Your task to perform on an android device: open app "Messenger Lite" (install if not already installed), go to login, and select forgot password Image 0: 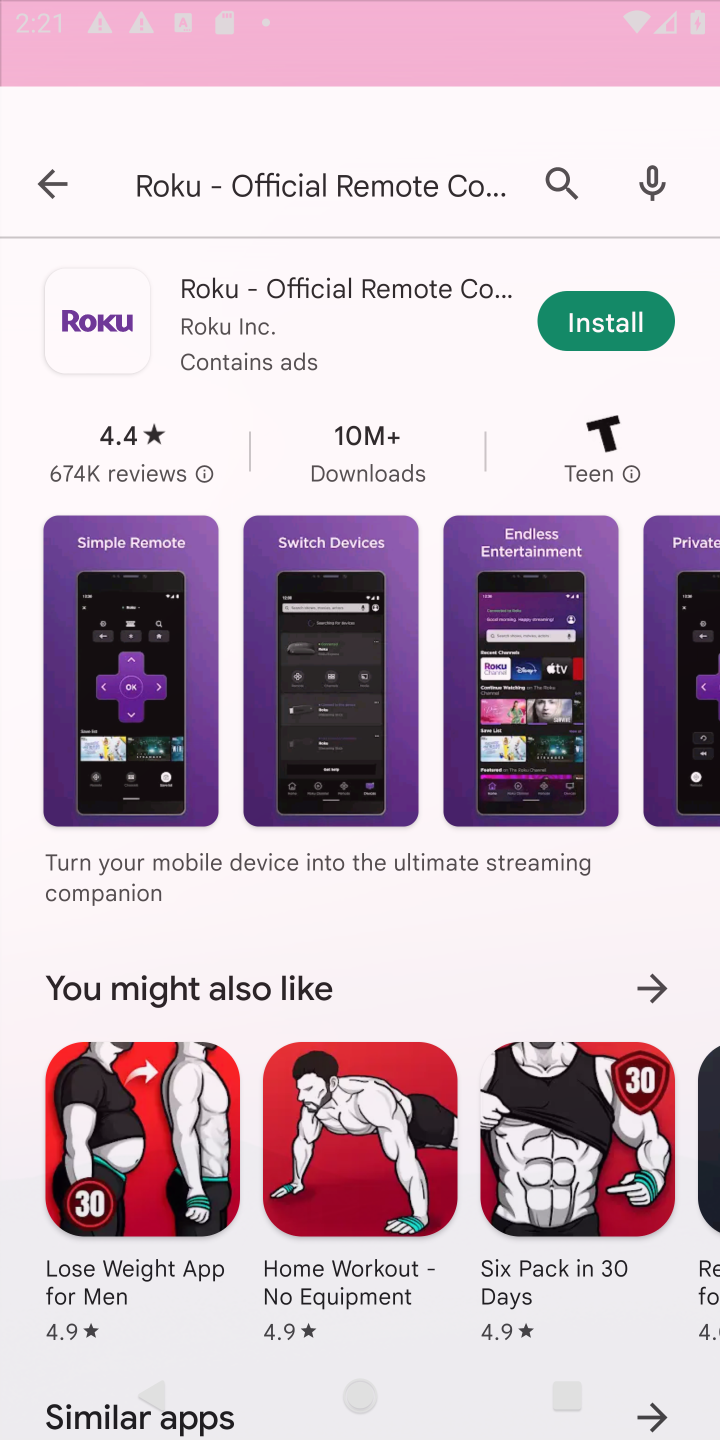
Step 0: press home button
Your task to perform on an android device: open app "Messenger Lite" (install if not already installed), go to login, and select forgot password Image 1: 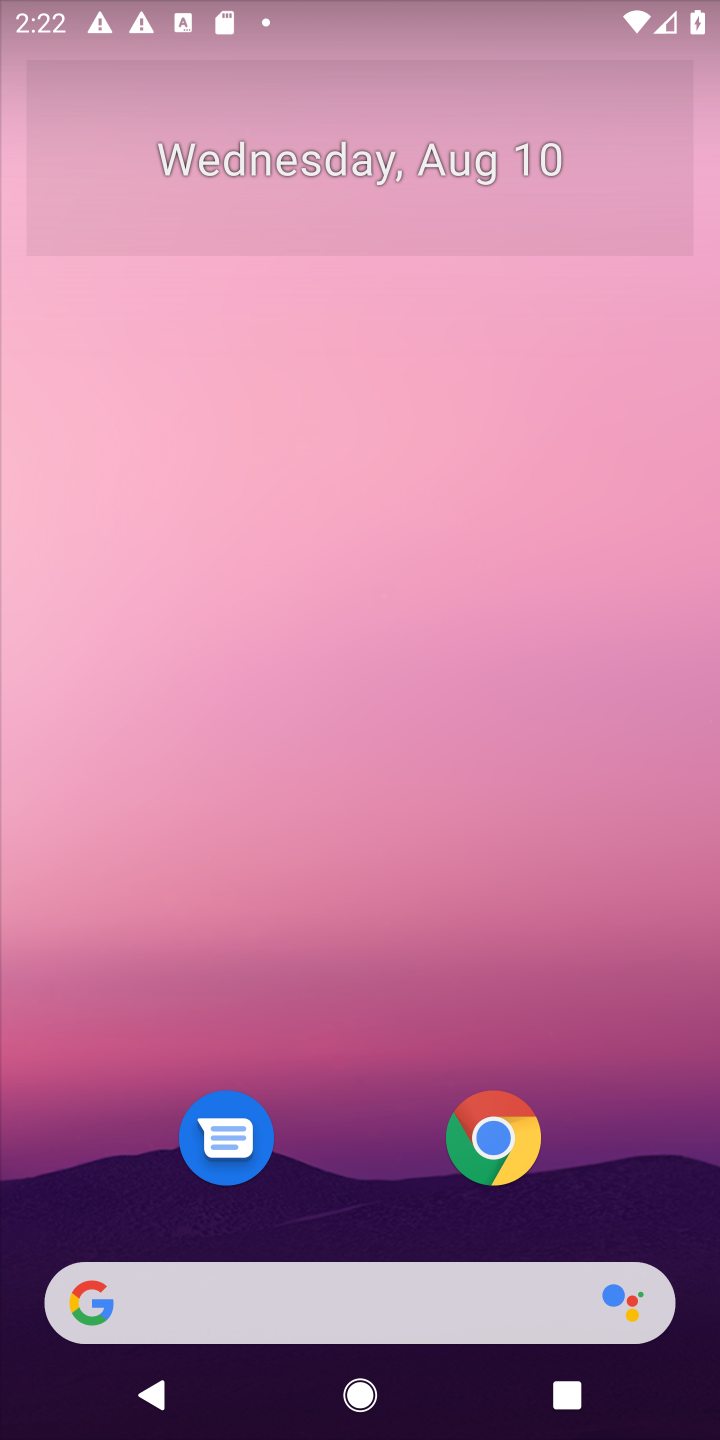
Step 1: drag from (601, 1163) to (597, 54)
Your task to perform on an android device: open app "Messenger Lite" (install if not already installed), go to login, and select forgot password Image 2: 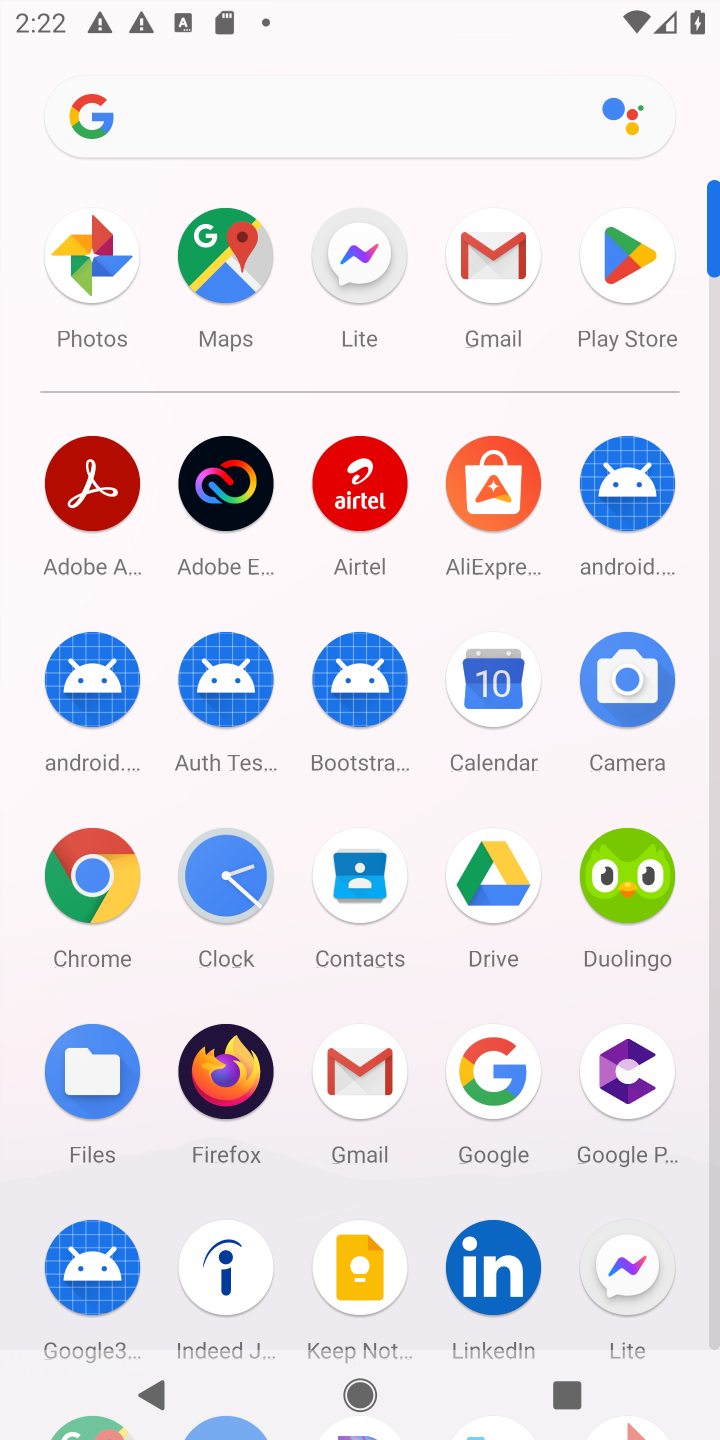
Step 2: click (616, 241)
Your task to perform on an android device: open app "Messenger Lite" (install if not already installed), go to login, and select forgot password Image 3: 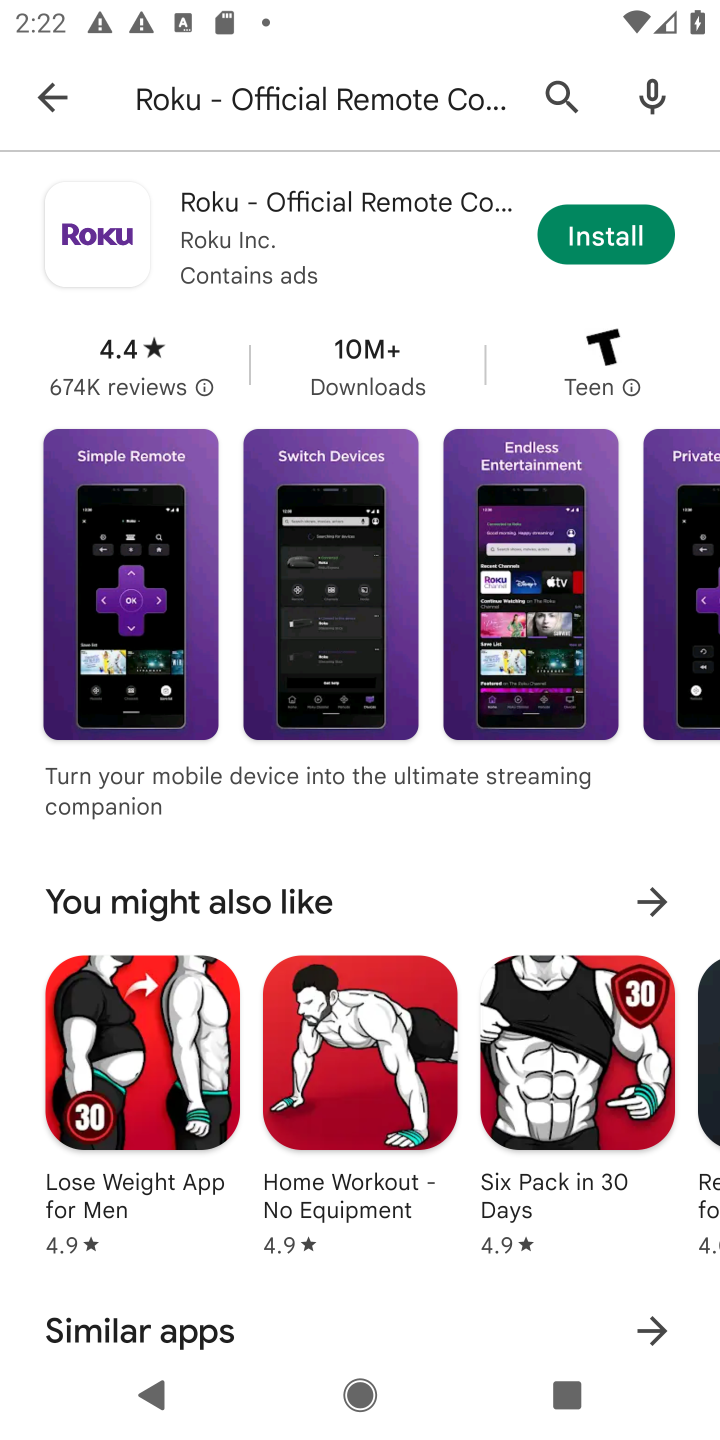
Step 3: click (552, 84)
Your task to perform on an android device: open app "Messenger Lite" (install if not already installed), go to login, and select forgot password Image 4: 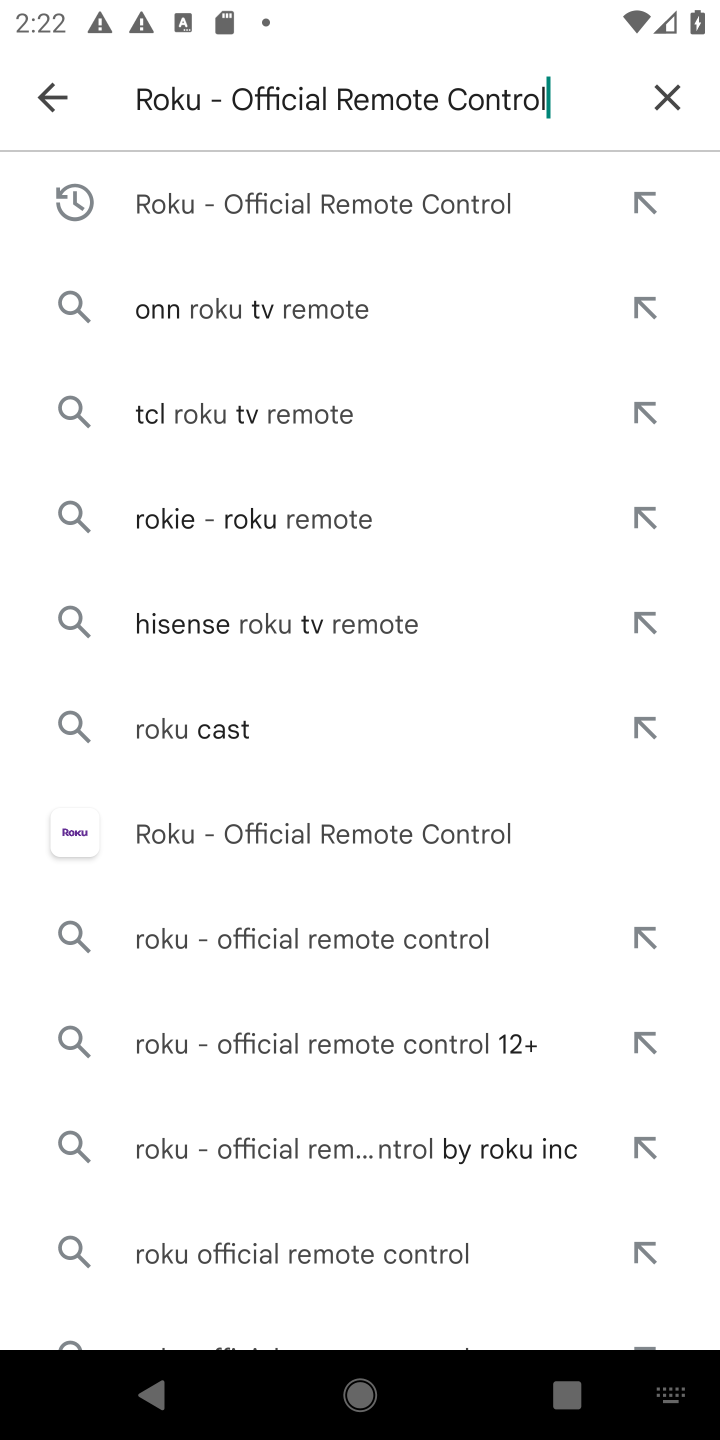
Step 4: click (662, 79)
Your task to perform on an android device: open app "Messenger Lite" (install if not already installed), go to login, and select forgot password Image 5: 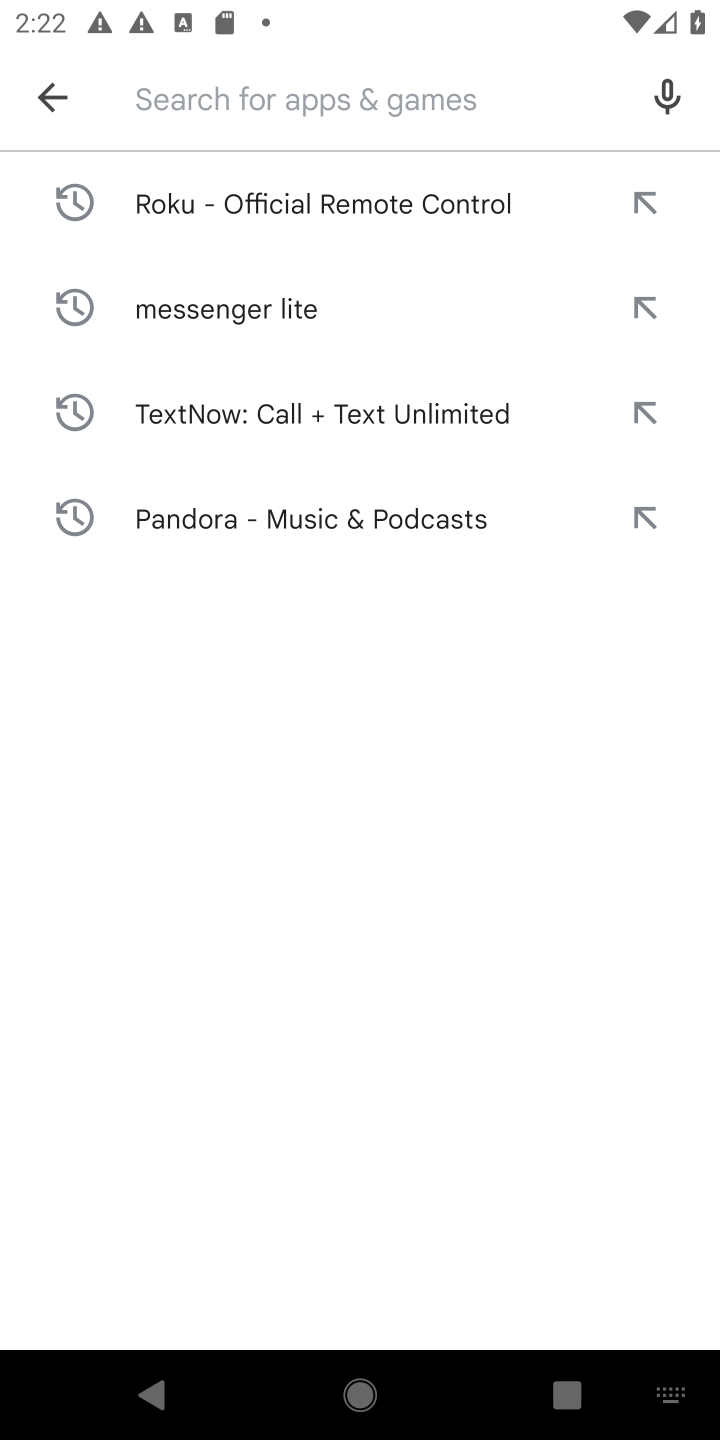
Step 5: press enter
Your task to perform on an android device: open app "Messenger Lite" (install if not already installed), go to login, and select forgot password Image 6: 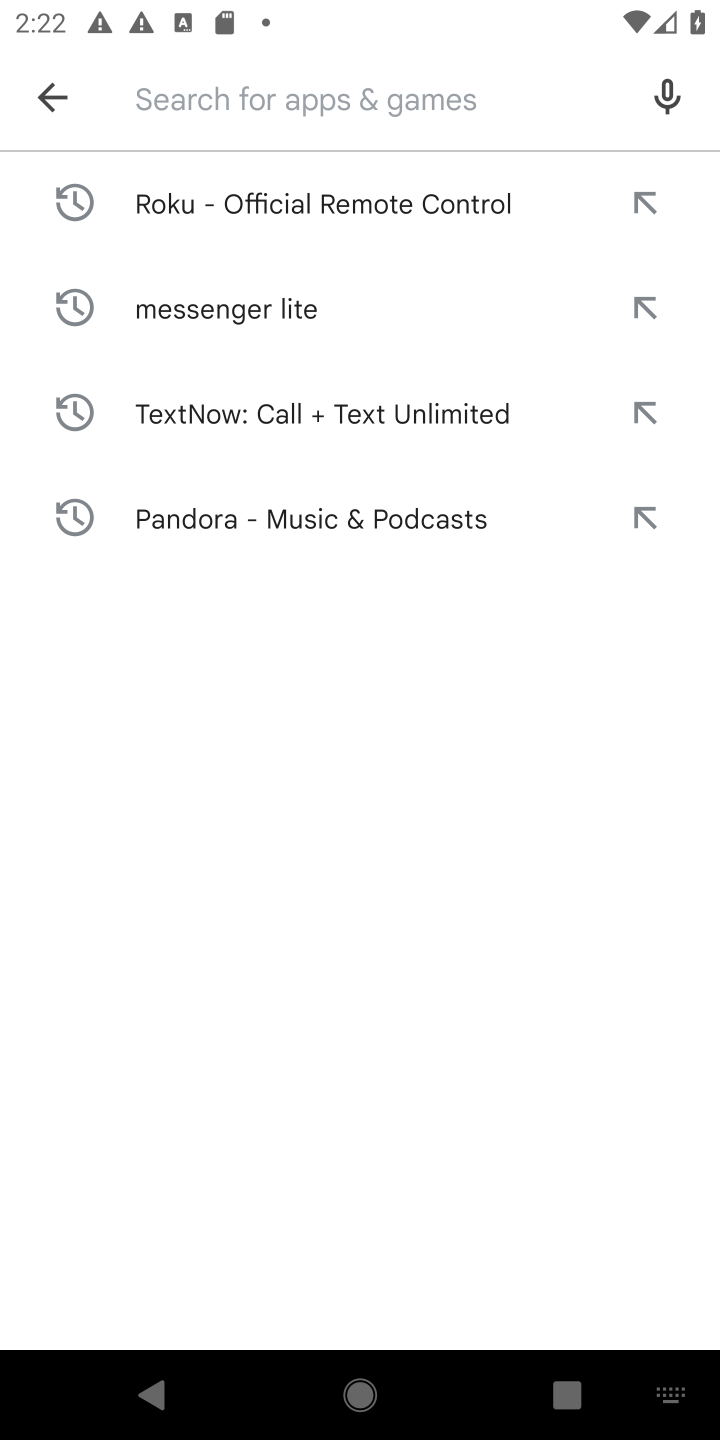
Step 6: type "messenger lite"
Your task to perform on an android device: open app "Messenger Lite" (install if not already installed), go to login, and select forgot password Image 7: 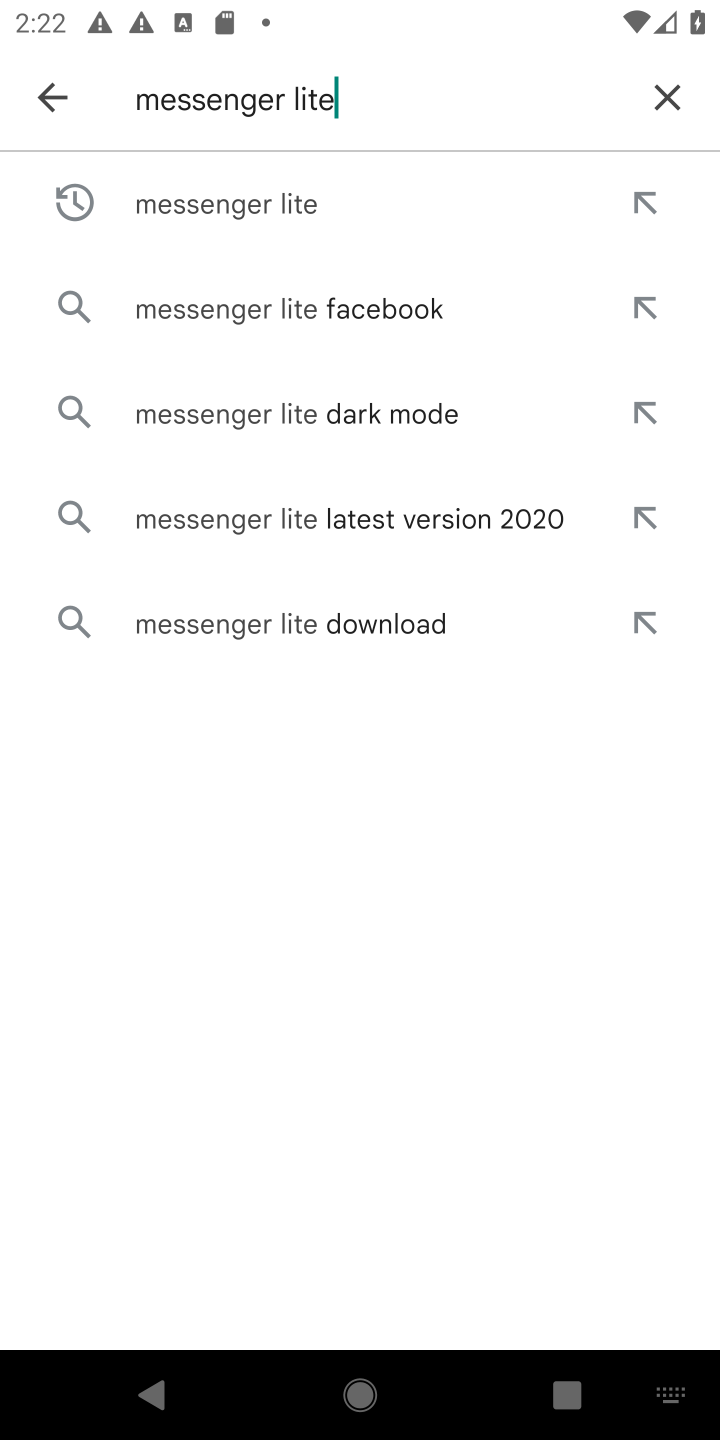
Step 7: click (328, 214)
Your task to perform on an android device: open app "Messenger Lite" (install if not already installed), go to login, and select forgot password Image 8: 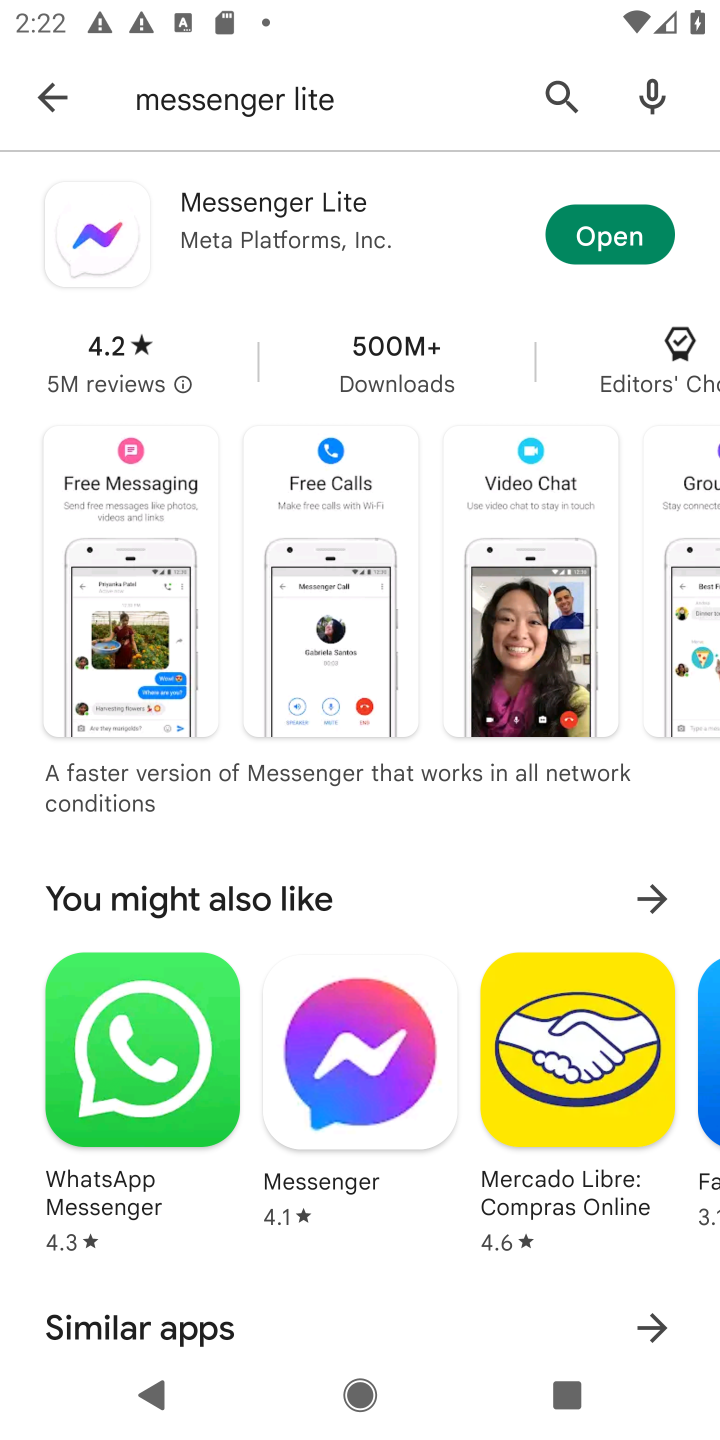
Step 8: click (606, 231)
Your task to perform on an android device: open app "Messenger Lite" (install if not already installed), go to login, and select forgot password Image 9: 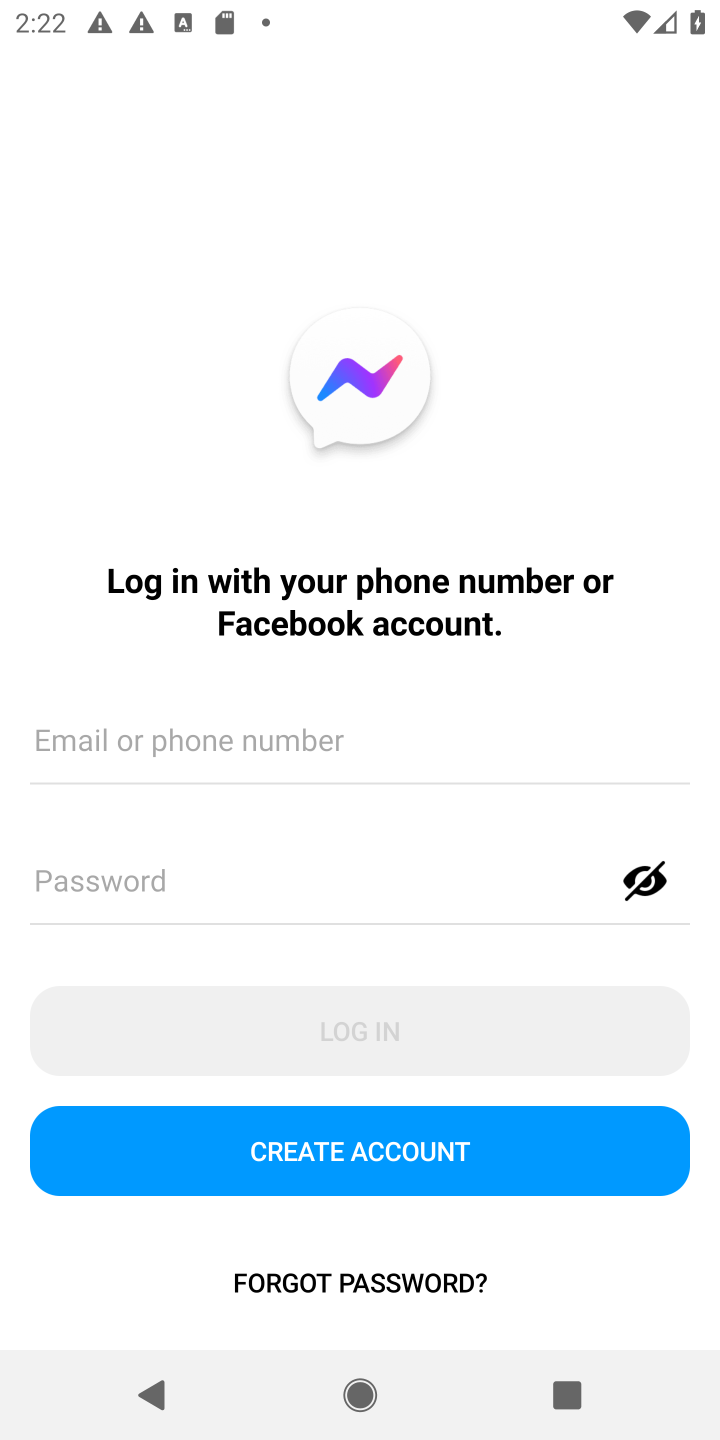
Step 9: click (335, 1280)
Your task to perform on an android device: open app "Messenger Lite" (install if not already installed), go to login, and select forgot password Image 10: 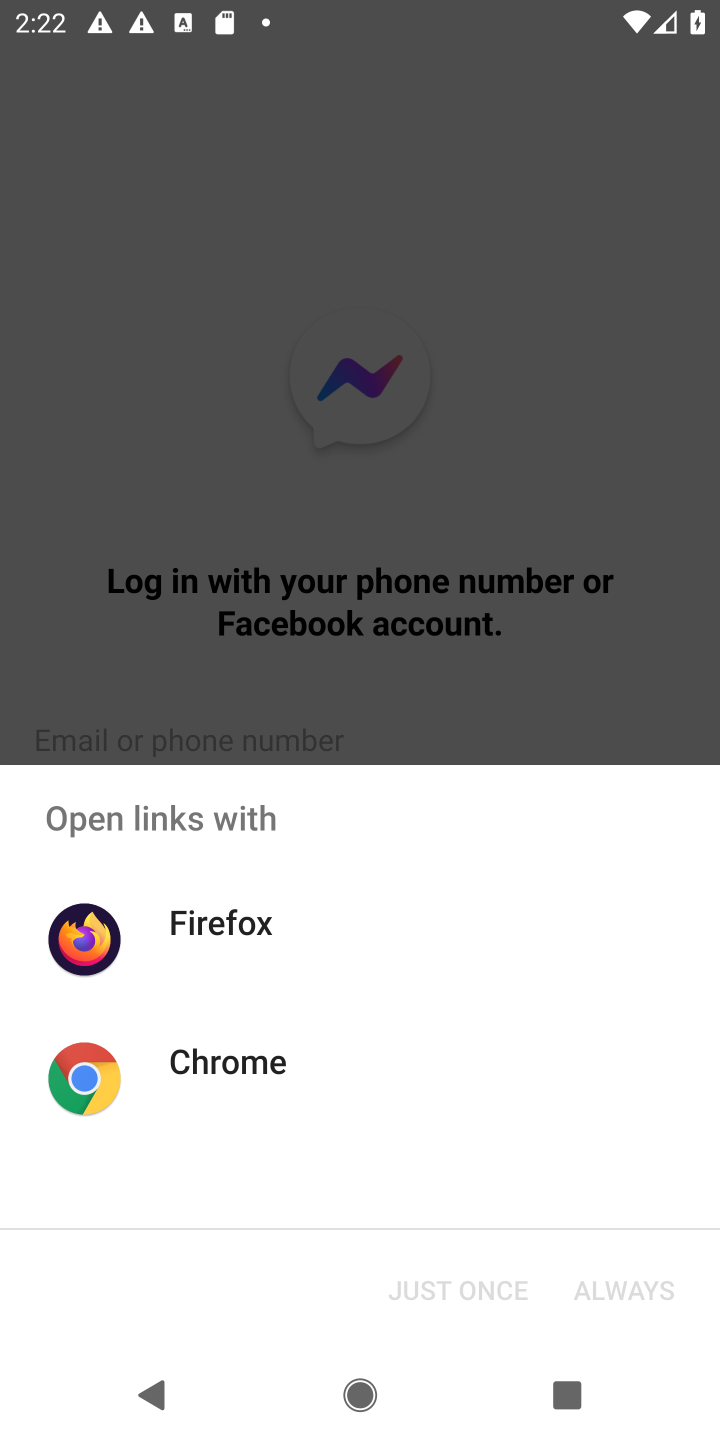
Step 10: task complete